Your task to perform on an android device: Go to settings Image 0: 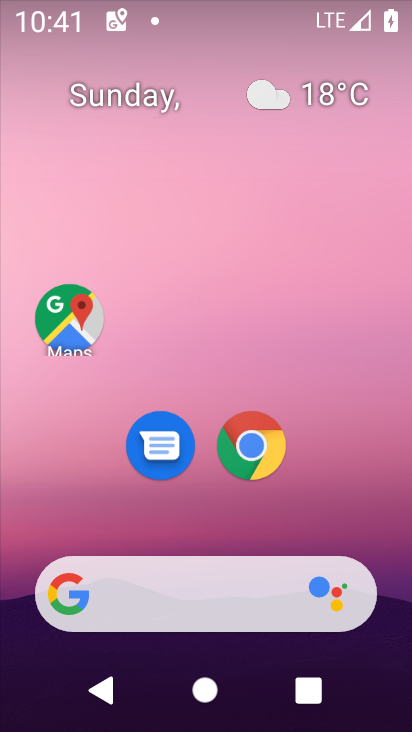
Step 0: drag from (201, 533) to (243, 2)
Your task to perform on an android device: Go to settings Image 1: 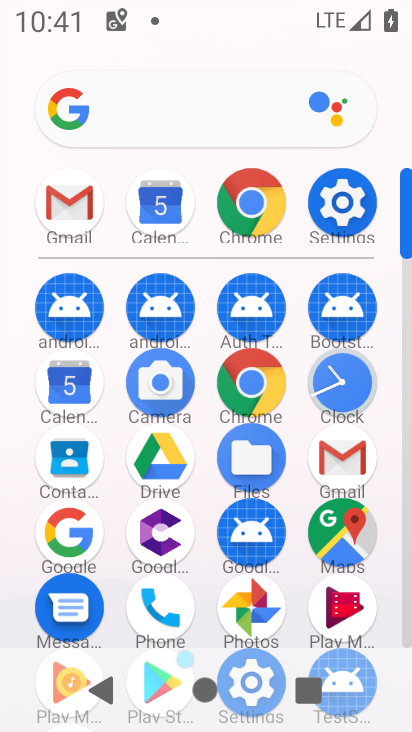
Step 1: click (336, 196)
Your task to perform on an android device: Go to settings Image 2: 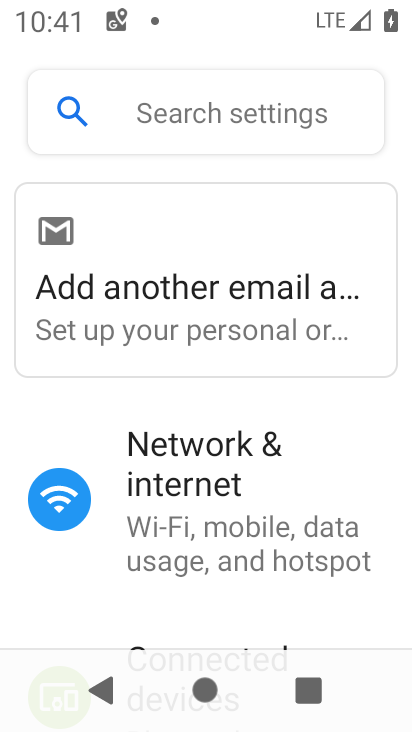
Step 2: task complete